Your task to perform on an android device: open device folders in google photos Image 0: 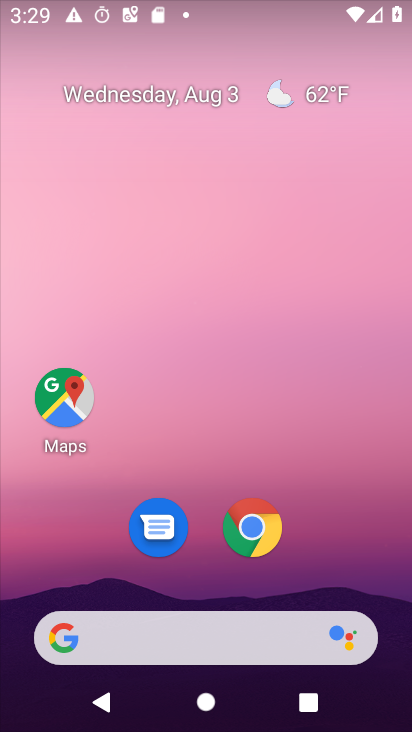
Step 0: drag from (323, 518) to (326, 121)
Your task to perform on an android device: open device folders in google photos Image 1: 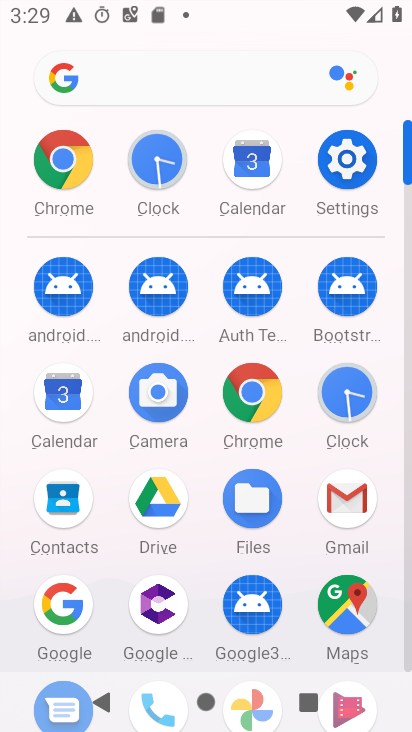
Step 1: drag from (293, 559) to (295, 307)
Your task to perform on an android device: open device folders in google photos Image 2: 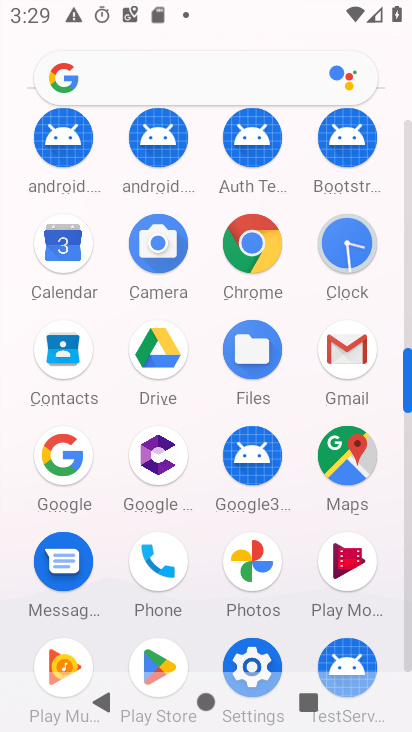
Step 2: click (260, 556)
Your task to perform on an android device: open device folders in google photos Image 3: 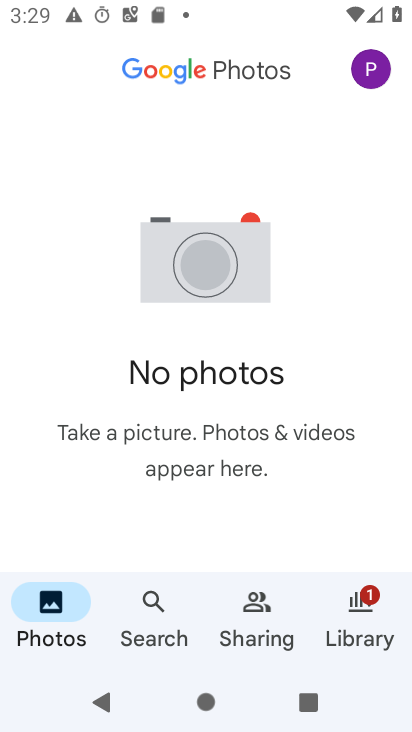
Step 3: click (360, 609)
Your task to perform on an android device: open device folders in google photos Image 4: 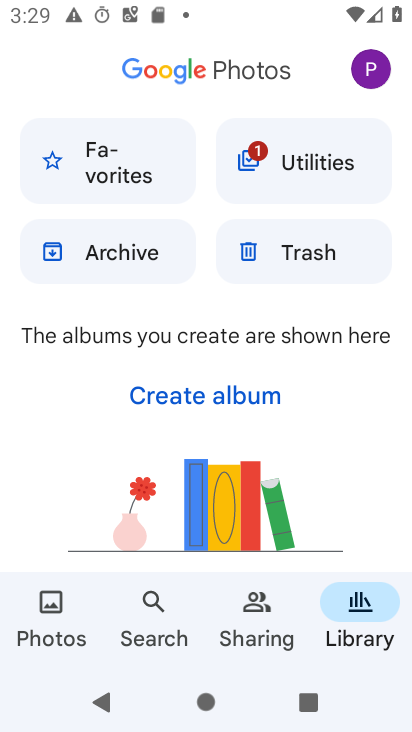
Step 4: click (280, 162)
Your task to perform on an android device: open device folders in google photos Image 5: 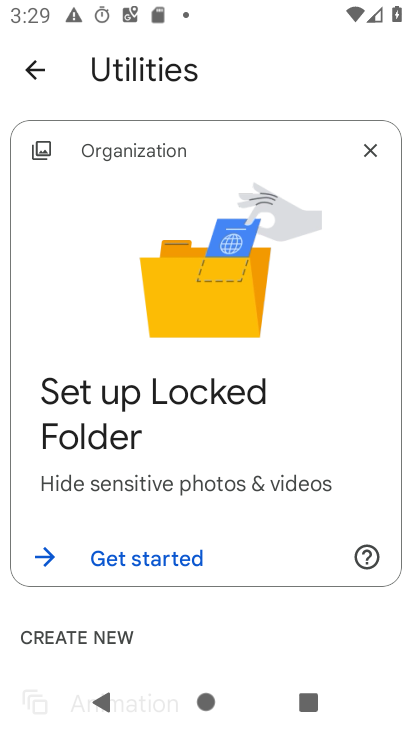
Step 5: drag from (316, 619) to (339, 178)
Your task to perform on an android device: open device folders in google photos Image 6: 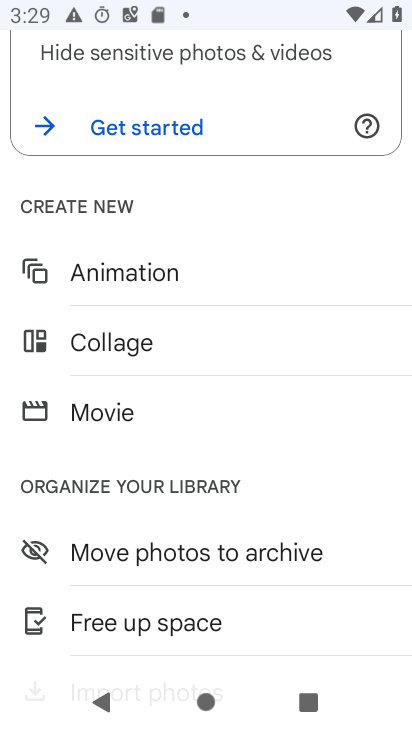
Step 6: drag from (273, 577) to (301, 280)
Your task to perform on an android device: open device folders in google photos Image 7: 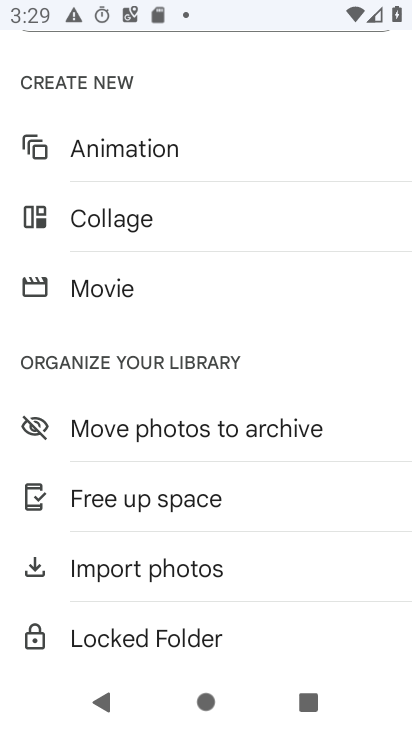
Step 7: click (233, 487)
Your task to perform on an android device: open device folders in google photos Image 8: 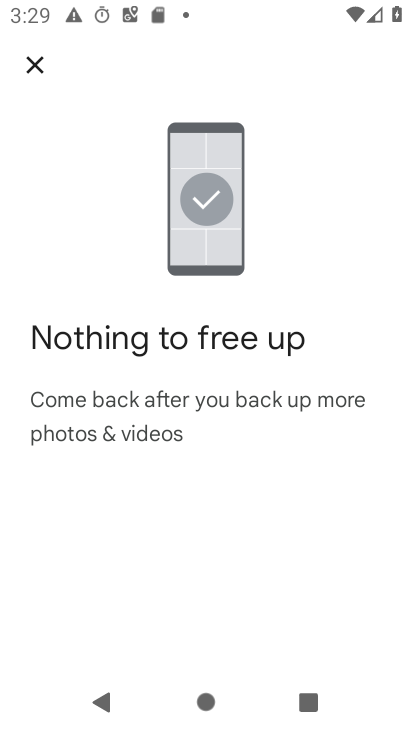
Step 8: click (41, 70)
Your task to perform on an android device: open device folders in google photos Image 9: 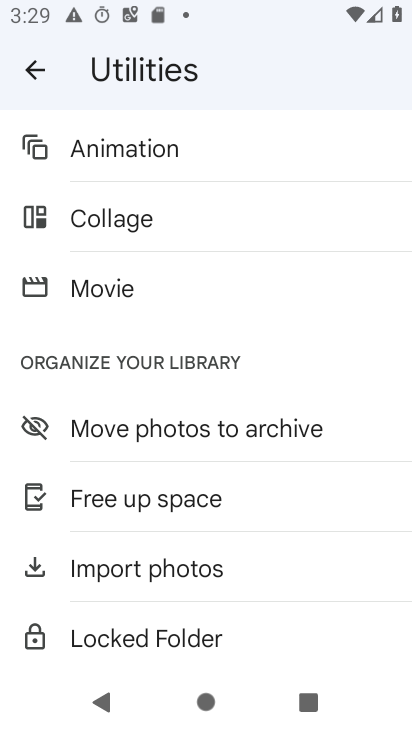
Step 9: drag from (213, 187) to (227, 568)
Your task to perform on an android device: open device folders in google photos Image 10: 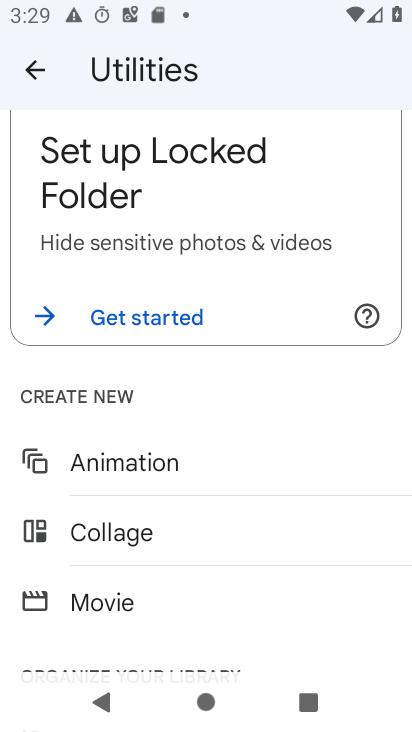
Step 10: drag from (138, 146) to (197, 546)
Your task to perform on an android device: open device folders in google photos Image 11: 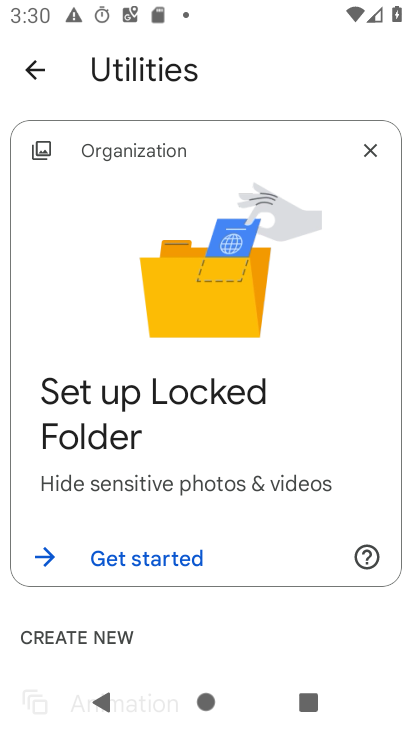
Step 11: click (28, 65)
Your task to perform on an android device: open device folders in google photos Image 12: 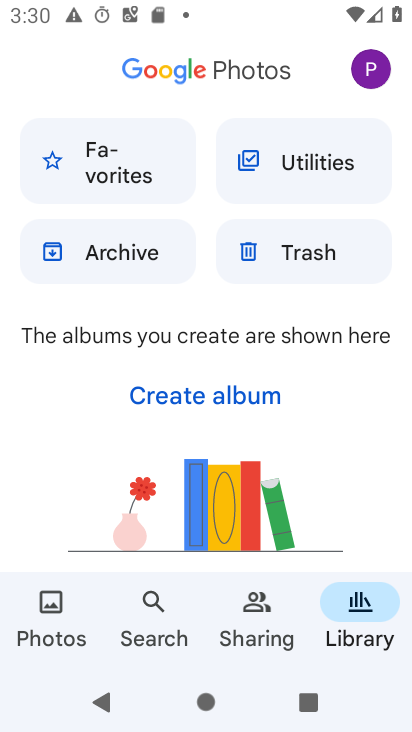
Step 12: click (366, 67)
Your task to perform on an android device: open device folders in google photos Image 13: 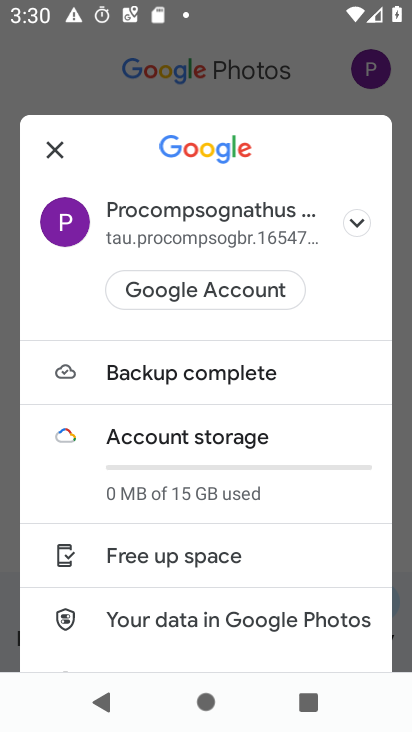
Step 13: drag from (277, 550) to (281, 203)
Your task to perform on an android device: open device folders in google photos Image 14: 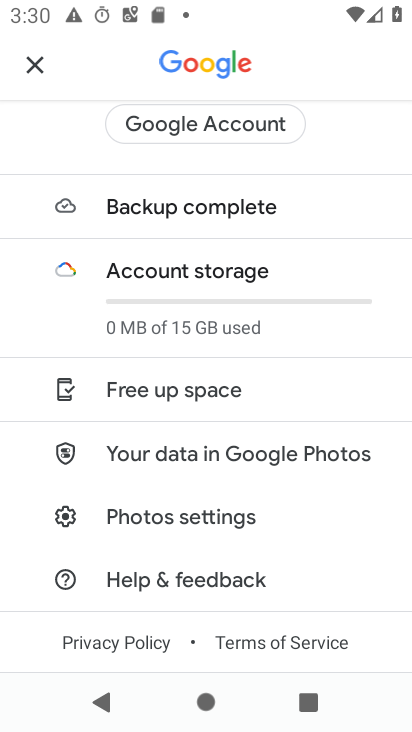
Step 14: click (234, 519)
Your task to perform on an android device: open device folders in google photos Image 15: 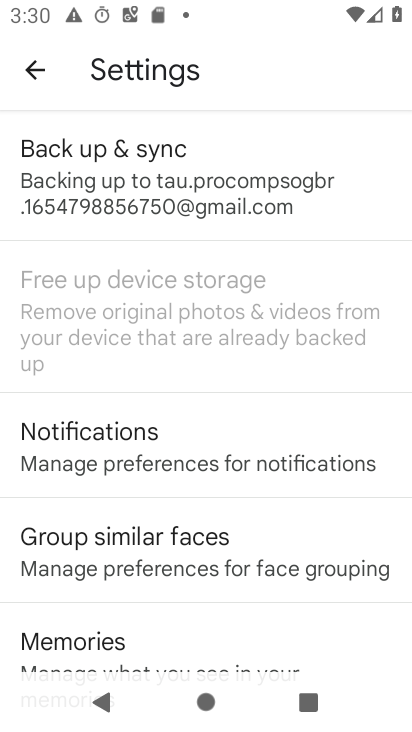
Step 15: task complete